Your task to perform on an android device: empty trash in google photos Image 0: 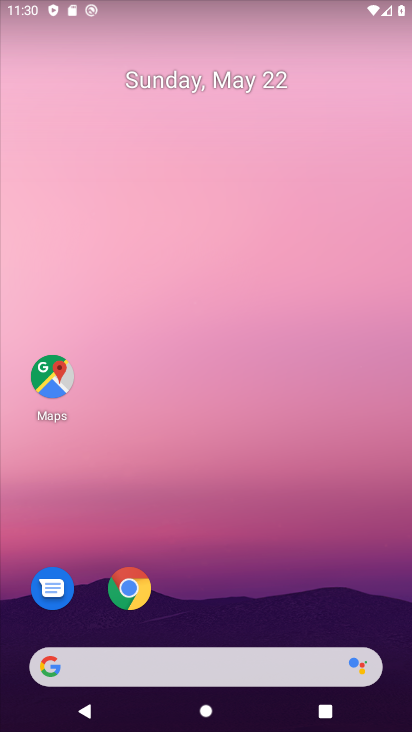
Step 0: drag from (274, 728) to (81, 21)
Your task to perform on an android device: empty trash in google photos Image 1: 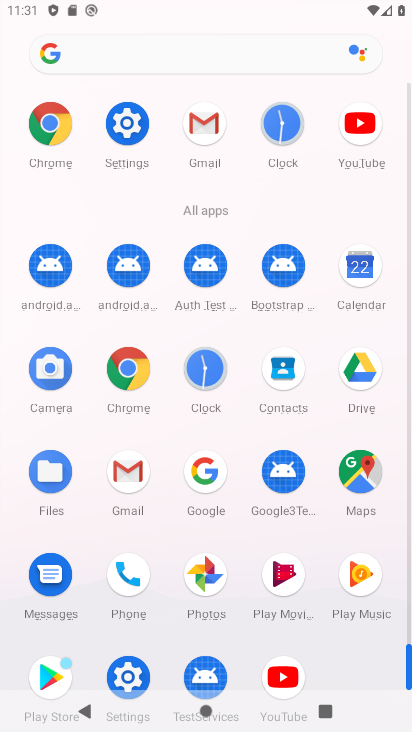
Step 1: click (201, 574)
Your task to perform on an android device: empty trash in google photos Image 2: 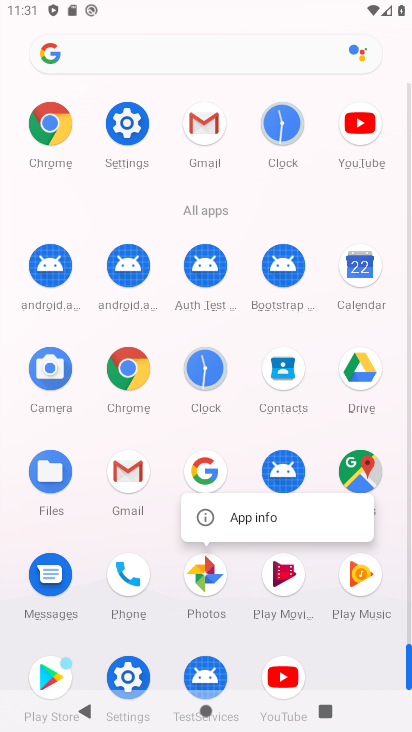
Step 2: click (204, 568)
Your task to perform on an android device: empty trash in google photos Image 3: 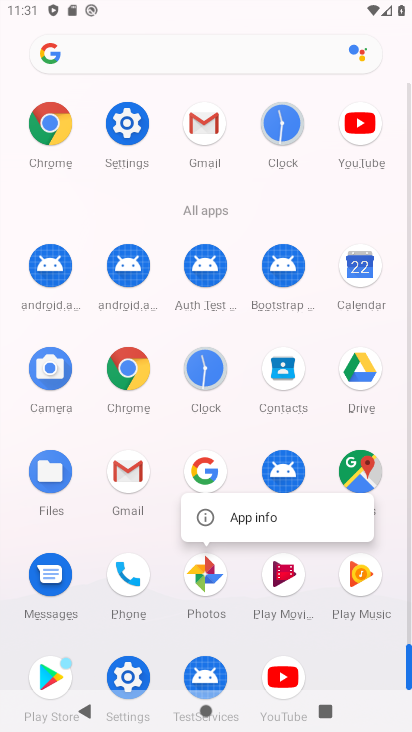
Step 3: click (208, 566)
Your task to perform on an android device: empty trash in google photos Image 4: 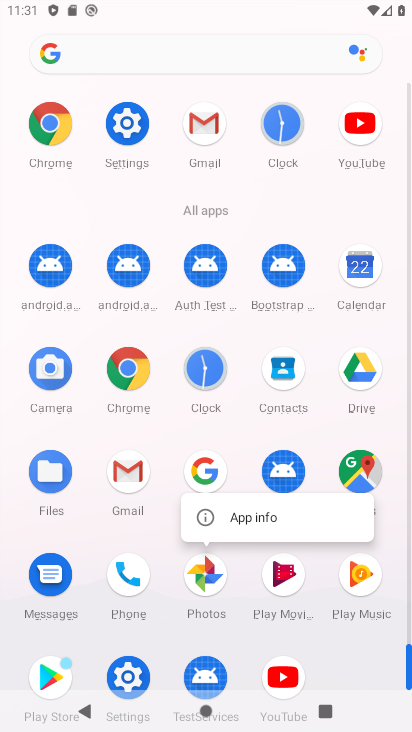
Step 4: click (209, 568)
Your task to perform on an android device: empty trash in google photos Image 5: 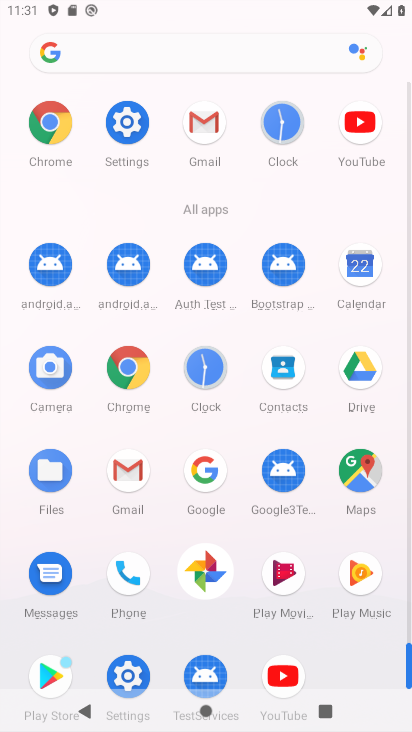
Step 5: click (209, 568)
Your task to perform on an android device: empty trash in google photos Image 6: 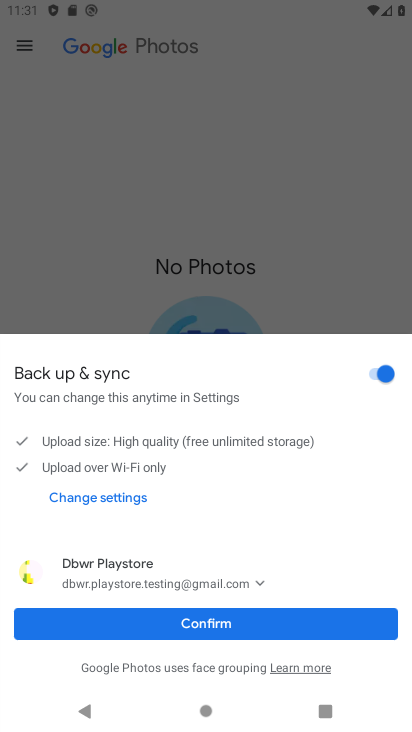
Step 6: click (302, 232)
Your task to perform on an android device: empty trash in google photos Image 7: 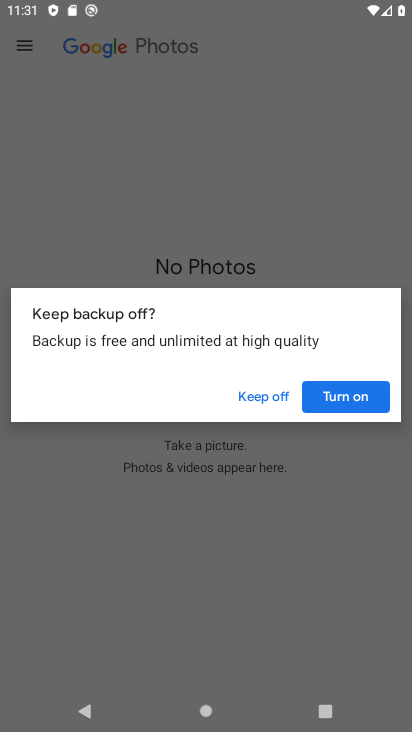
Step 7: click (231, 622)
Your task to perform on an android device: empty trash in google photos Image 8: 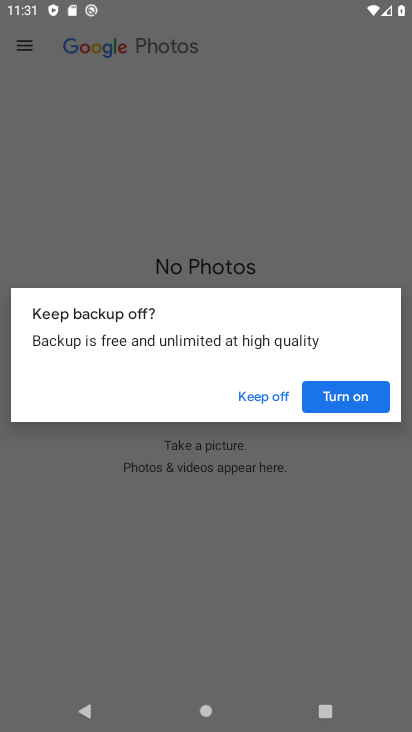
Step 8: click (358, 394)
Your task to perform on an android device: empty trash in google photos Image 9: 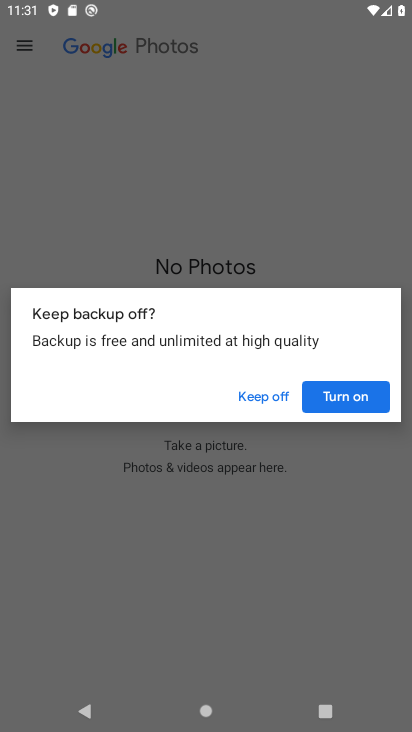
Step 9: click (357, 395)
Your task to perform on an android device: empty trash in google photos Image 10: 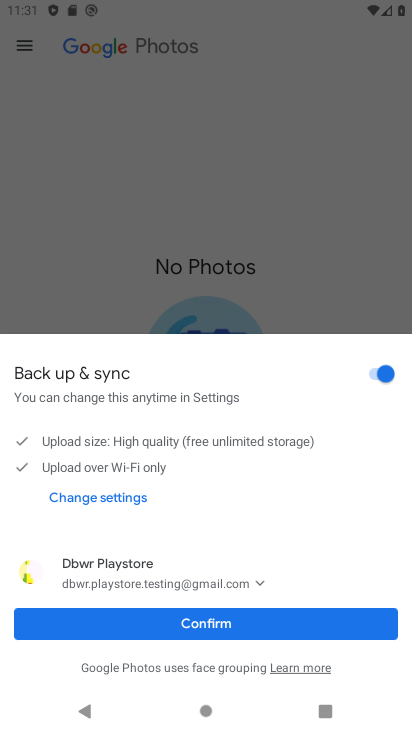
Step 10: click (221, 628)
Your task to perform on an android device: empty trash in google photos Image 11: 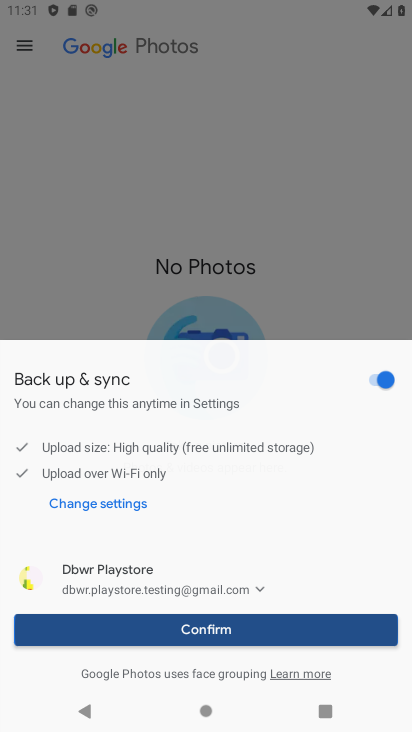
Step 11: click (221, 628)
Your task to perform on an android device: empty trash in google photos Image 12: 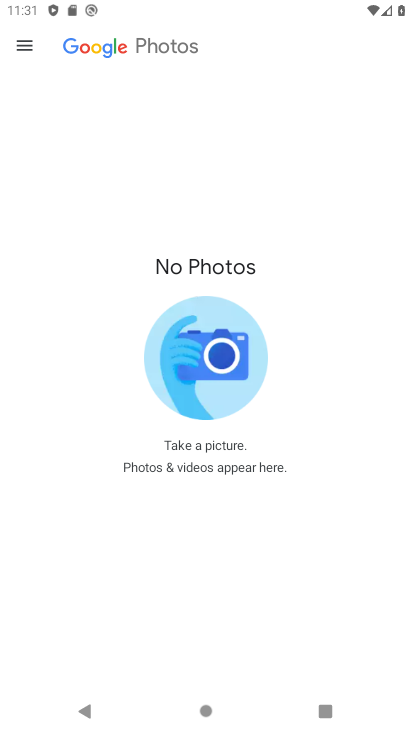
Step 12: click (221, 628)
Your task to perform on an android device: empty trash in google photos Image 13: 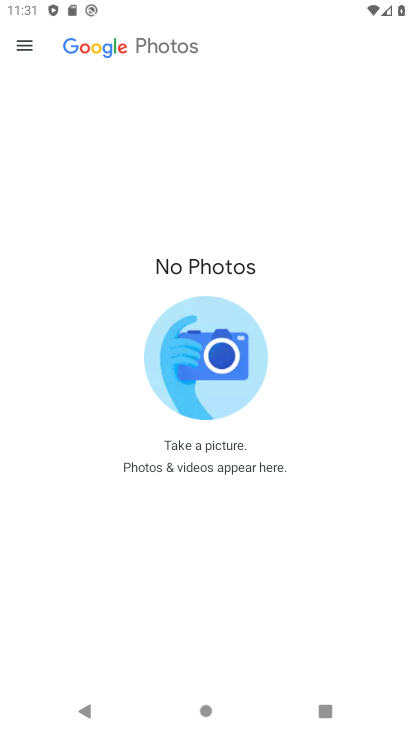
Step 13: click (221, 628)
Your task to perform on an android device: empty trash in google photos Image 14: 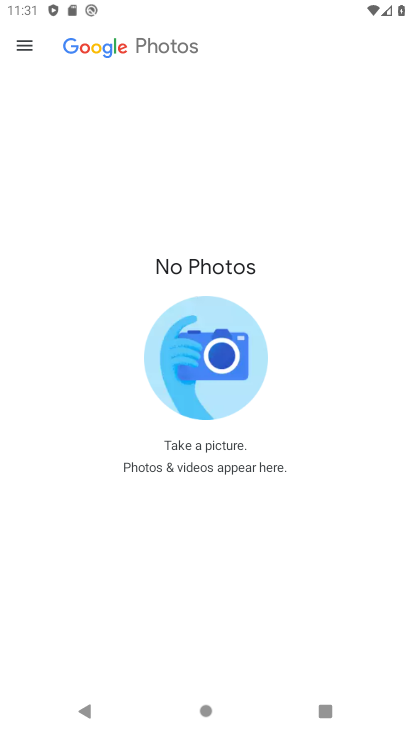
Step 14: click (221, 628)
Your task to perform on an android device: empty trash in google photos Image 15: 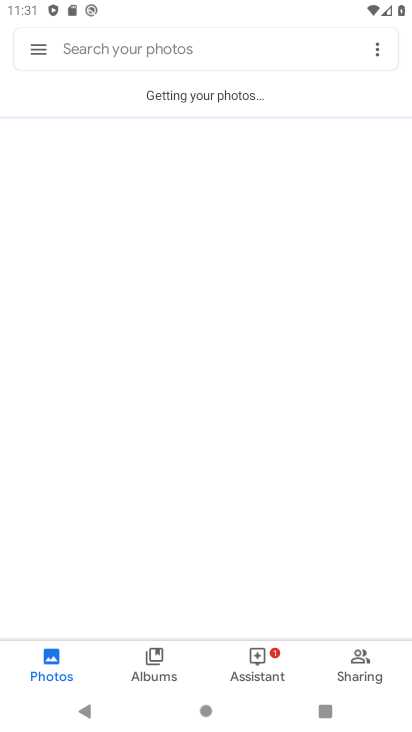
Step 15: task complete